Your task to perform on an android device: Open Google Image 0: 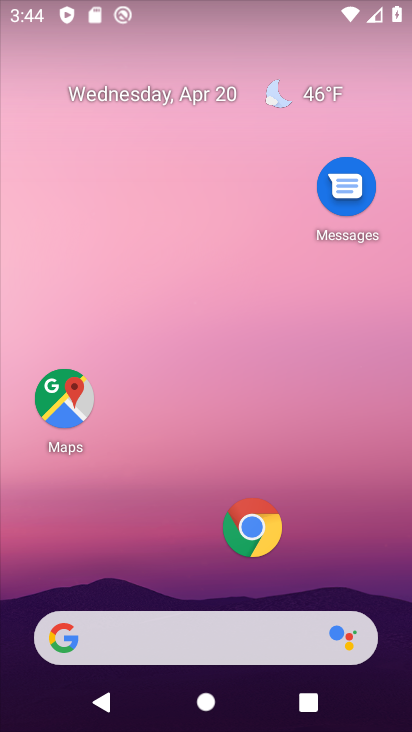
Step 0: drag from (172, 641) to (283, 114)
Your task to perform on an android device: Open Google Image 1: 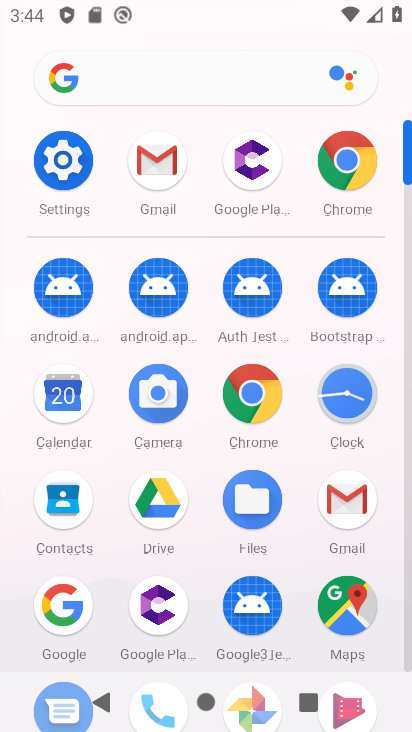
Step 1: click (73, 618)
Your task to perform on an android device: Open Google Image 2: 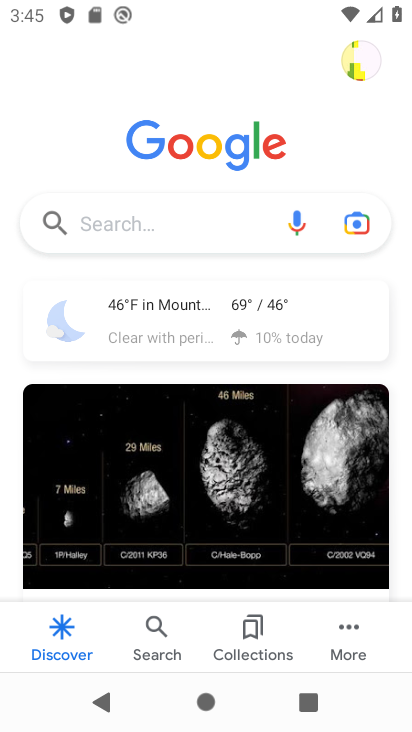
Step 2: task complete